Your task to perform on an android device: Go to Maps Image 0: 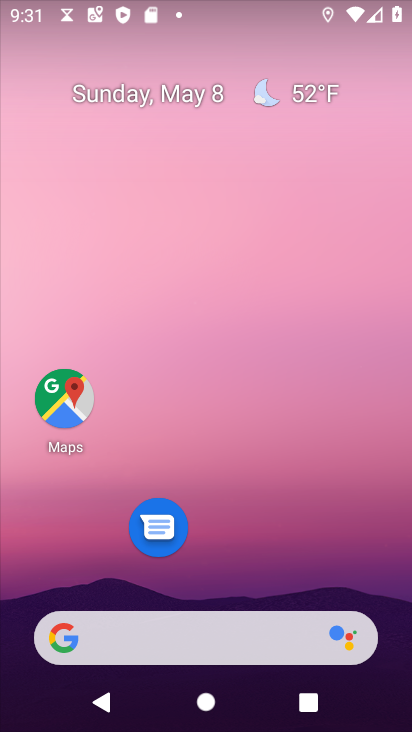
Step 0: click (66, 401)
Your task to perform on an android device: Go to Maps Image 1: 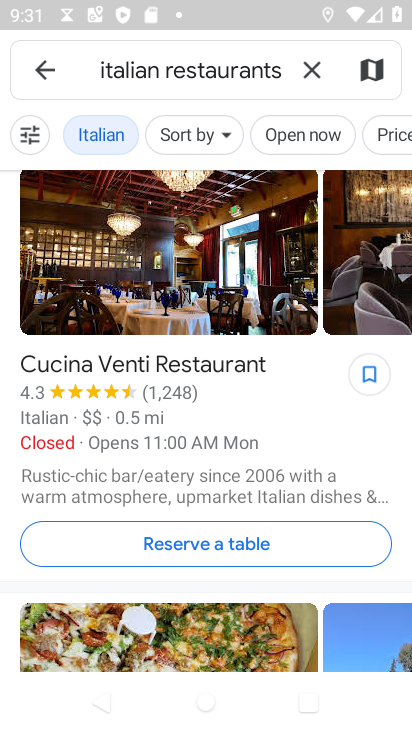
Step 1: click (307, 72)
Your task to perform on an android device: Go to Maps Image 2: 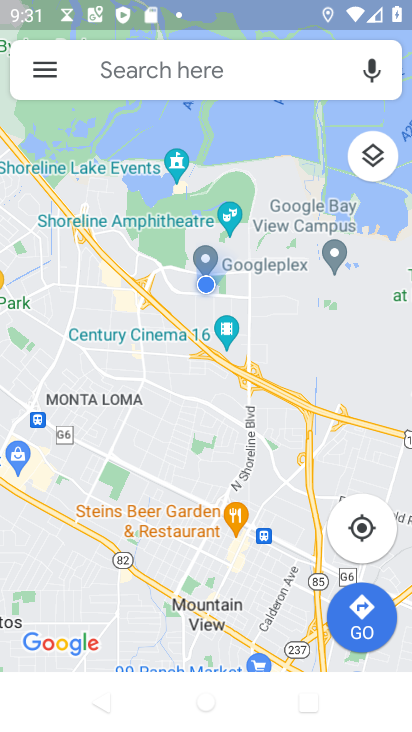
Step 2: task complete